Your task to perform on an android device: toggle notification dots Image 0: 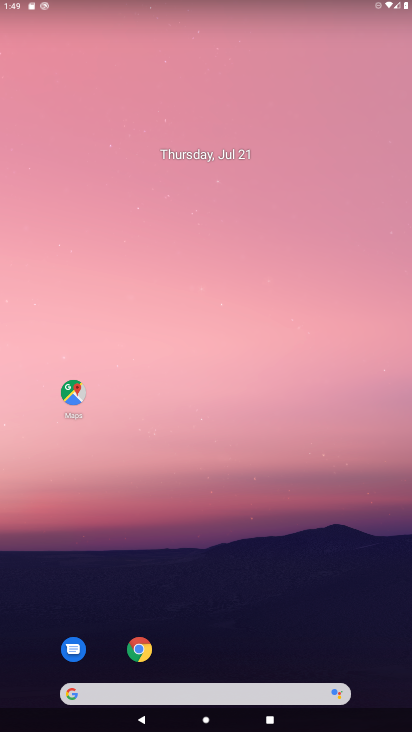
Step 0: drag from (376, 556) to (359, 27)
Your task to perform on an android device: toggle notification dots Image 1: 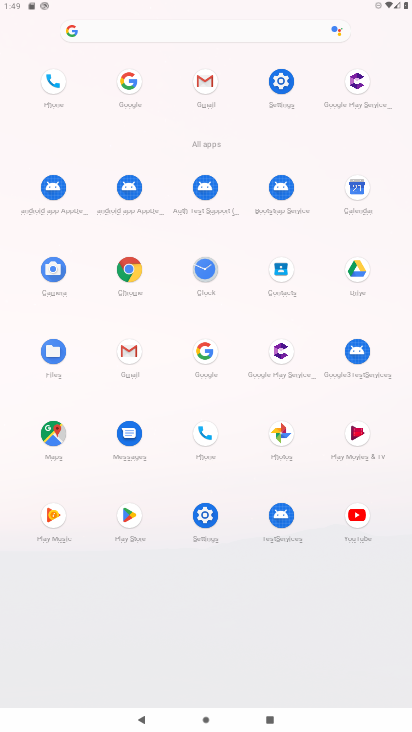
Step 1: click (289, 79)
Your task to perform on an android device: toggle notification dots Image 2: 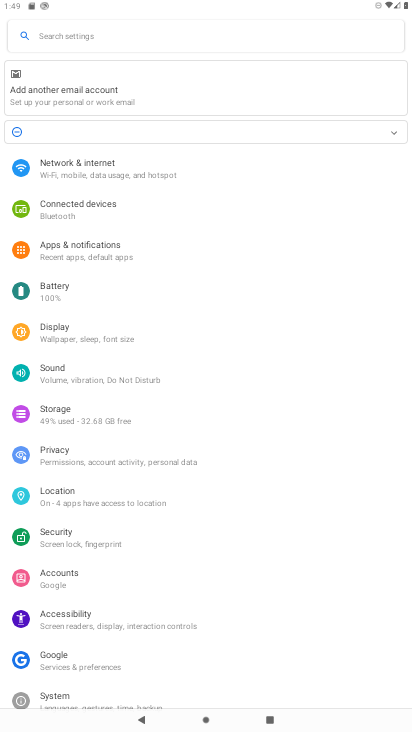
Step 2: click (99, 239)
Your task to perform on an android device: toggle notification dots Image 3: 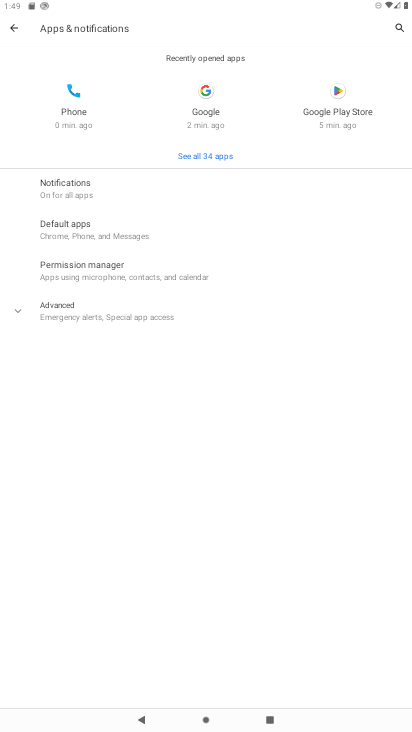
Step 3: click (50, 319)
Your task to perform on an android device: toggle notification dots Image 4: 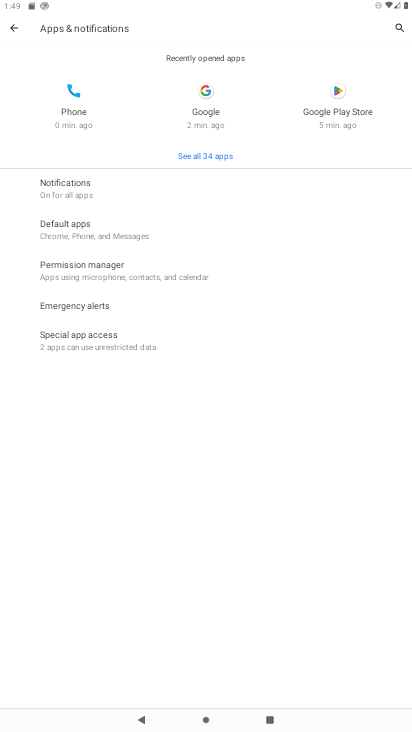
Step 4: click (61, 185)
Your task to perform on an android device: toggle notification dots Image 5: 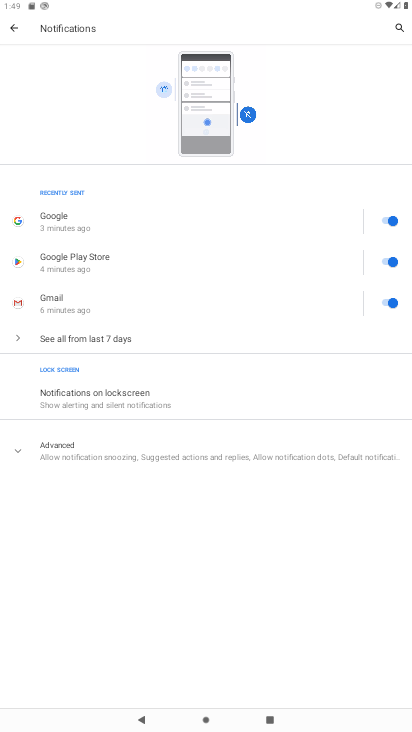
Step 5: click (88, 441)
Your task to perform on an android device: toggle notification dots Image 6: 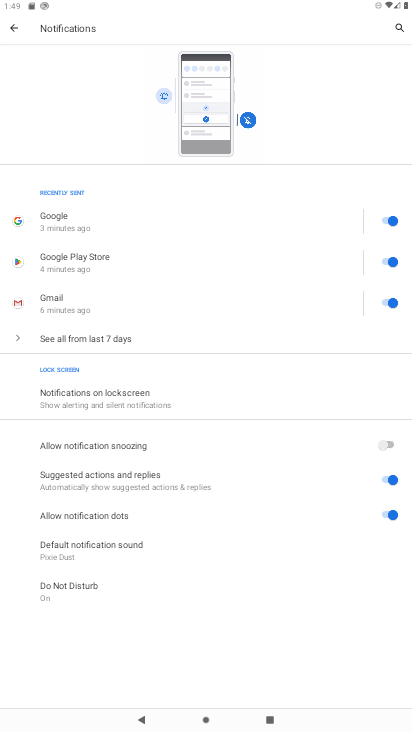
Step 6: click (385, 514)
Your task to perform on an android device: toggle notification dots Image 7: 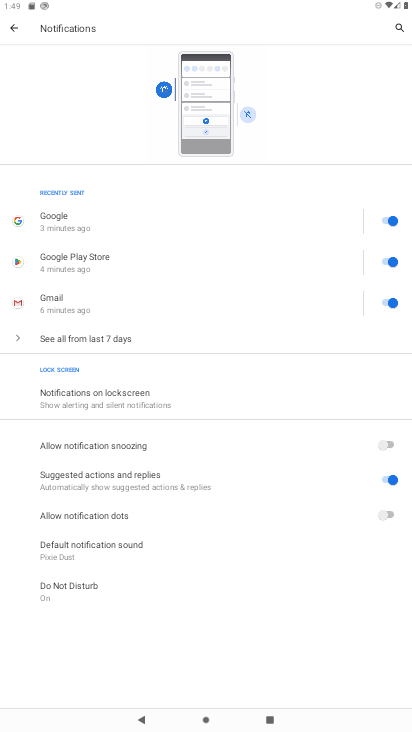
Step 7: task complete